Your task to perform on an android device: When is my next meeting? Image 0: 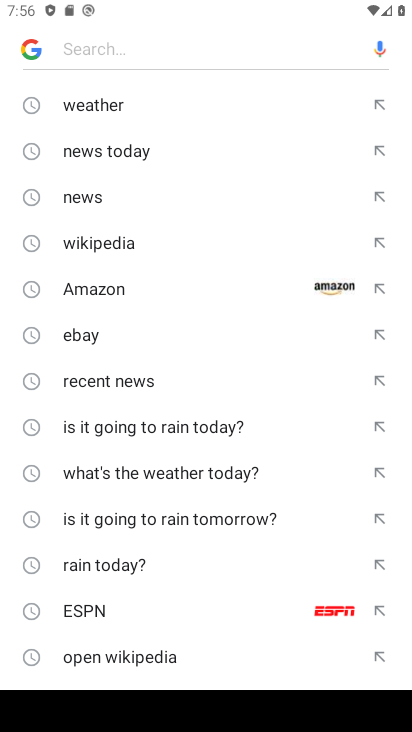
Step 0: press home button
Your task to perform on an android device: When is my next meeting? Image 1: 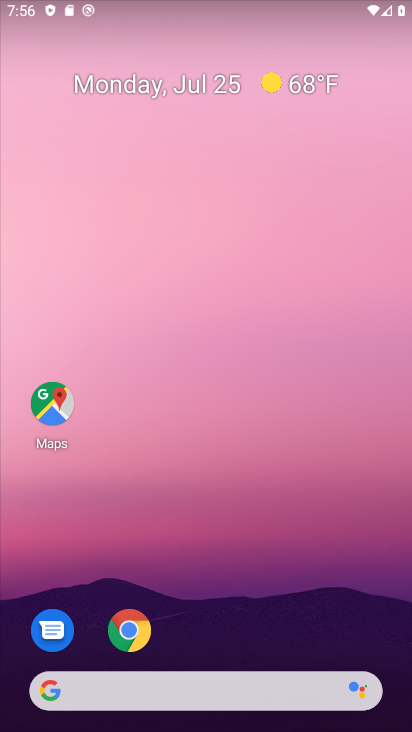
Step 1: drag from (133, 677) to (266, 244)
Your task to perform on an android device: When is my next meeting? Image 2: 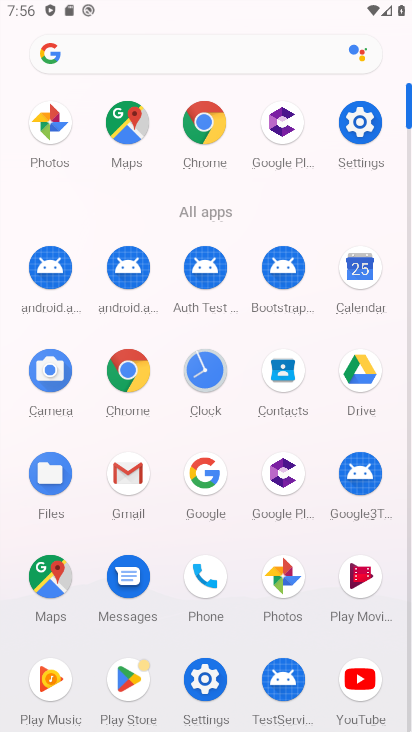
Step 2: click (353, 275)
Your task to perform on an android device: When is my next meeting? Image 3: 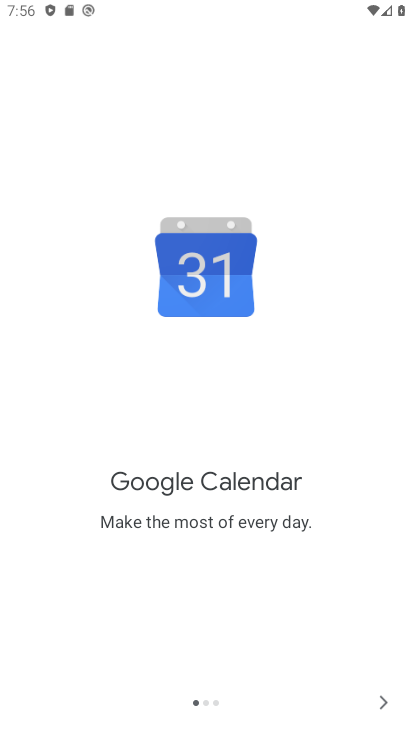
Step 3: click (382, 695)
Your task to perform on an android device: When is my next meeting? Image 4: 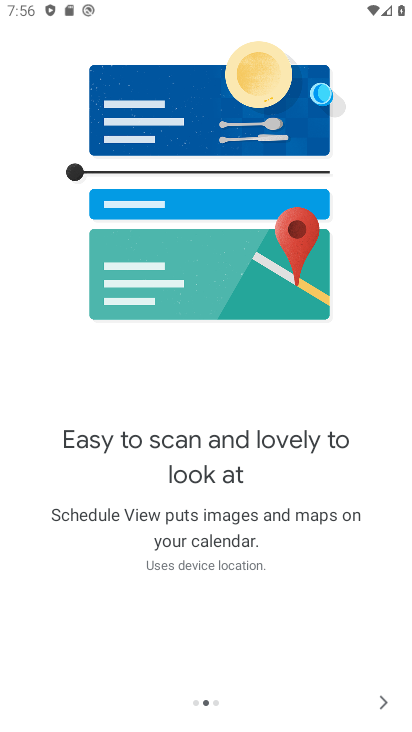
Step 4: click (380, 698)
Your task to perform on an android device: When is my next meeting? Image 5: 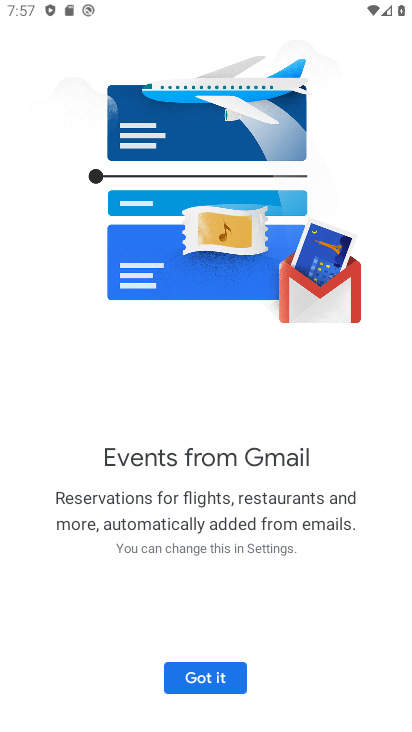
Step 5: click (220, 682)
Your task to perform on an android device: When is my next meeting? Image 6: 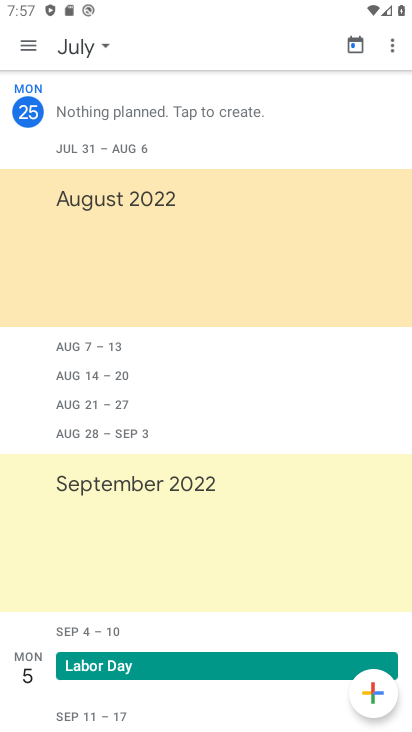
Step 6: task complete